Your task to perform on an android device: Open the web browser Image 0: 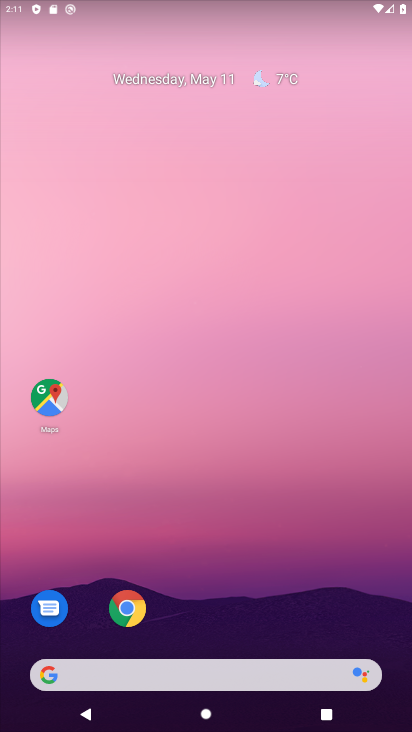
Step 0: drag from (223, 561) to (324, 148)
Your task to perform on an android device: Open the web browser Image 1: 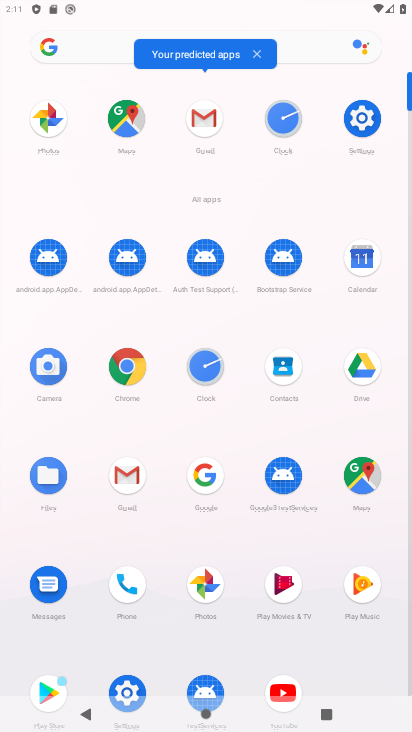
Step 1: click (212, 487)
Your task to perform on an android device: Open the web browser Image 2: 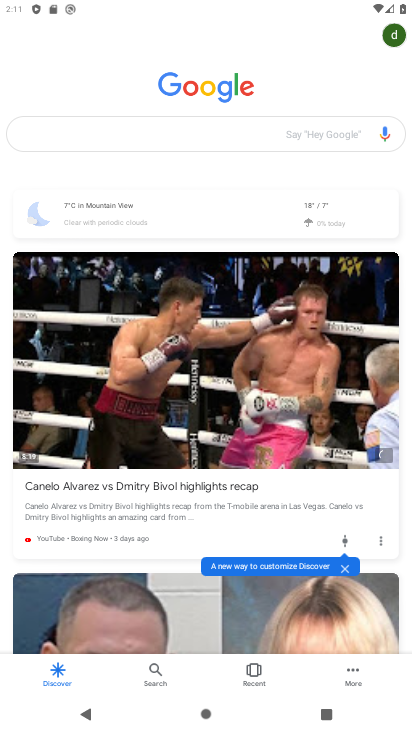
Step 2: task complete